Your task to perform on an android device: choose inbox layout in the gmail app Image 0: 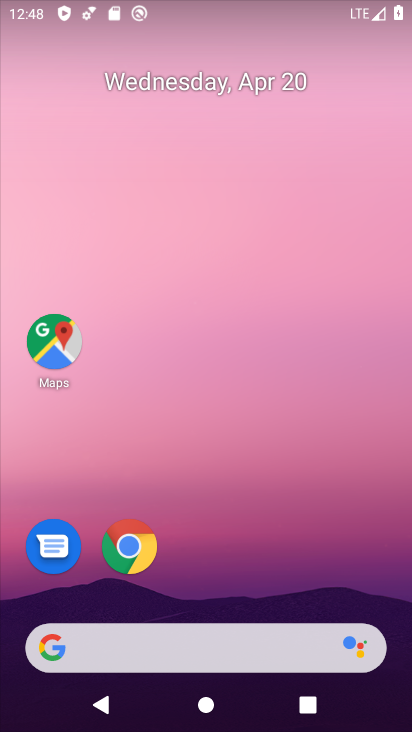
Step 0: drag from (234, 467) to (304, 84)
Your task to perform on an android device: choose inbox layout in the gmail app Image 1: 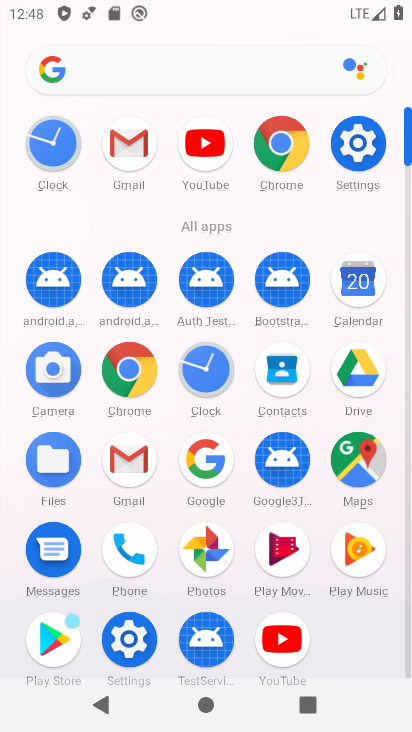
Step 1: click (125, 458)
Your task to perform on an android device: choose inbox layout in the gmail app Image 2: 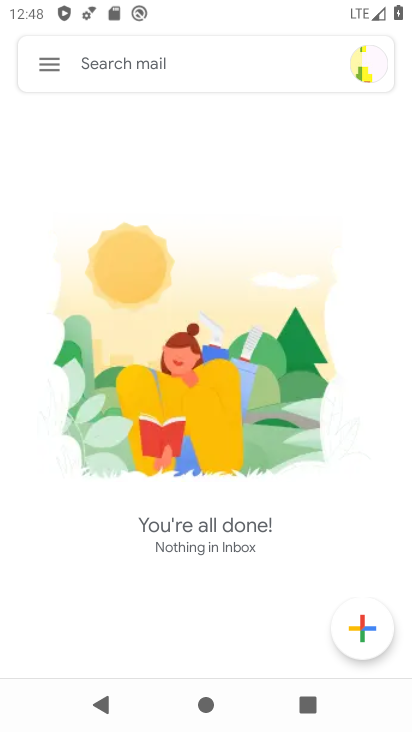
Step 2: click (37, 62)
Your task to perform on an android device: choose inbox layout in the gmail app Image 3: 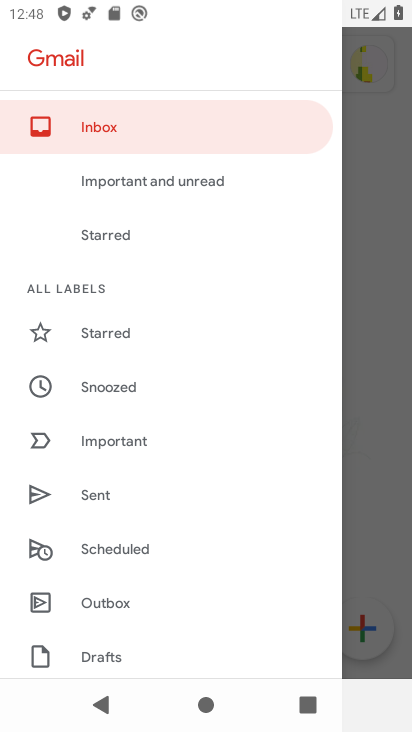
Step 3: drag from (135, 629) to (254, 263)
Your task to perform on an android device: choose inbox layout in the gmail app Image 4: 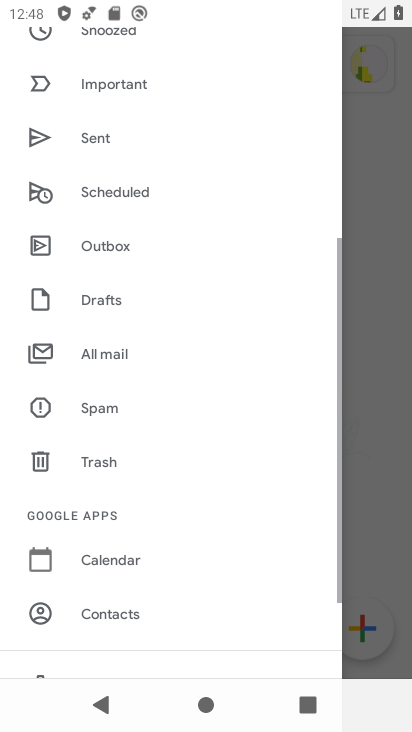
Step 4: drag from (167, 594) to (290, 250)
Your task to perform on an android device: choose inbox layout in the gmail app Image 5: 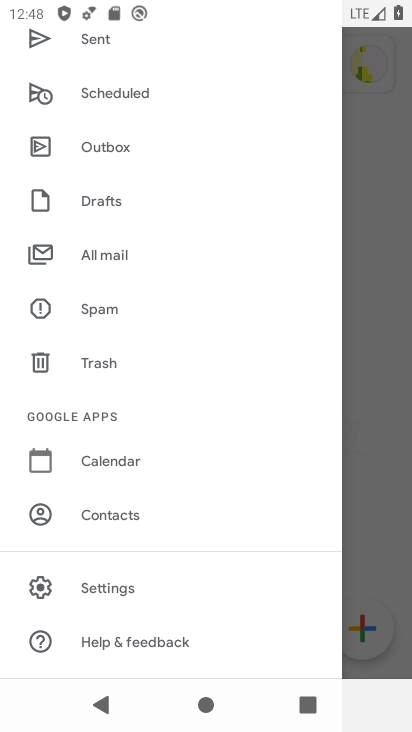
Step 5: click (161, 594)
Your task to perform on an android device: choose inbox layout in the gmail app Image 6: 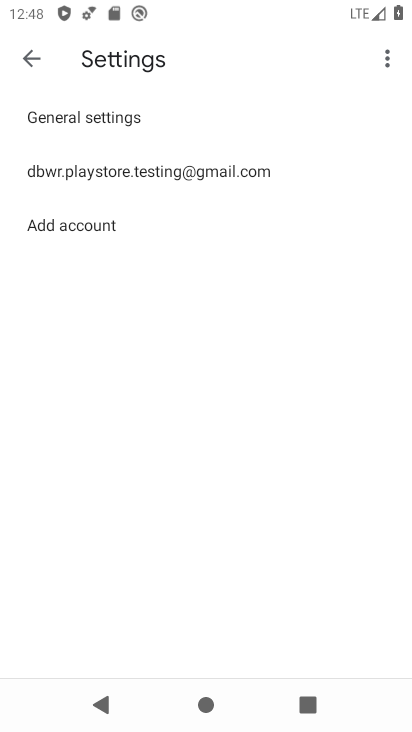
Step 6: click (232, 175)
Your task to perform on an android device: choose inbox layout in the gmail app Image 7: 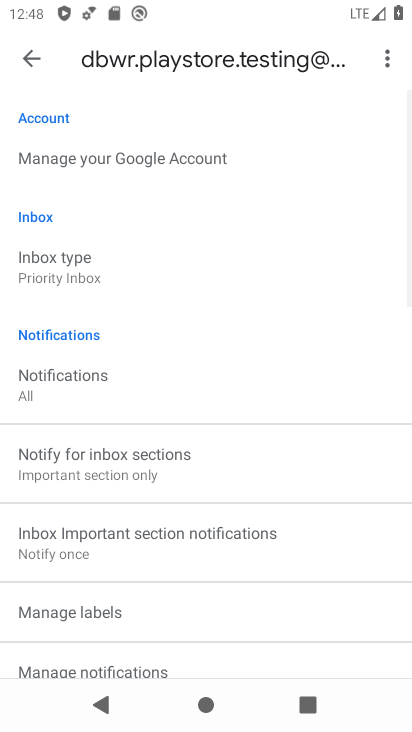
Step 7: drag from (152, 453) to (259, 205)
Your task to perform on an android device: choose inbox layout in the gmail app Image 8: 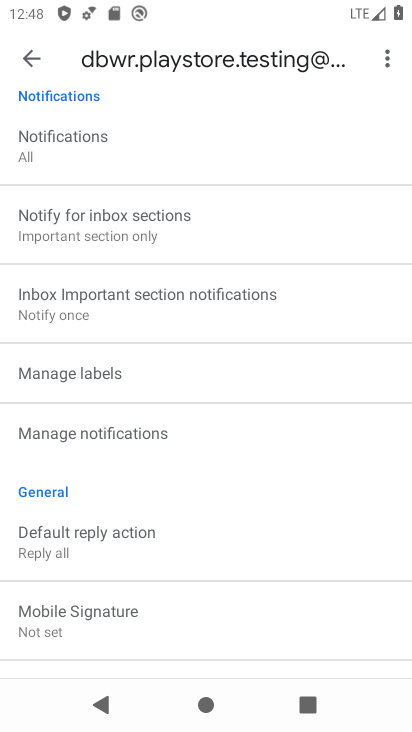
Step 8: drag from (181, 199) to (189, 510)
Your task to perform on an android device: choose inbox layout in the gmail app Image 9: 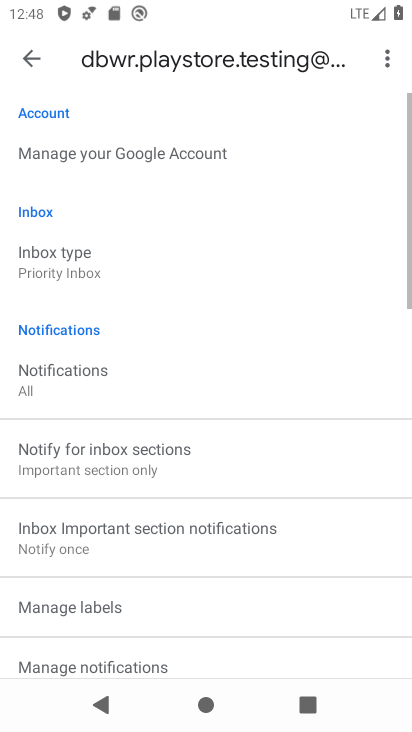
Step 9: click (84, 265)
Your task to perform on an android device: choose inbox layout in the gmail app Image 10: 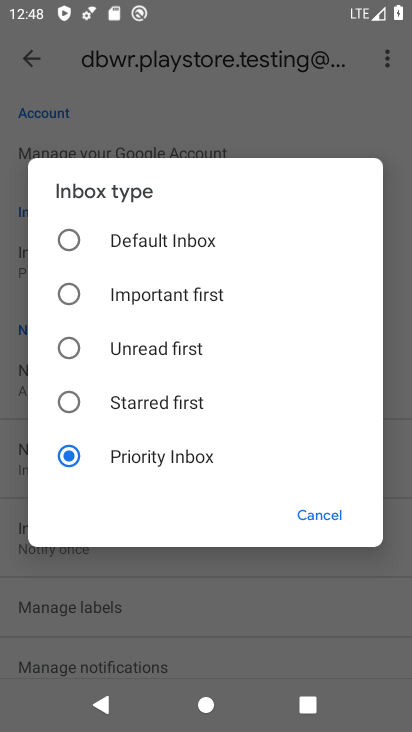
Step 10: click (123, 340)
Your task to perform on an android device: choose inbox layout in the gmail app Image 11: 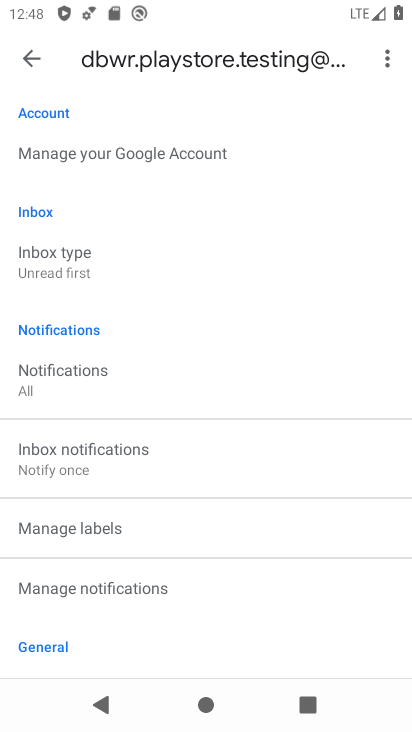
Step 11: task complete